Your task to perform on an android device: turn pop-ups on in chrome Image 0: 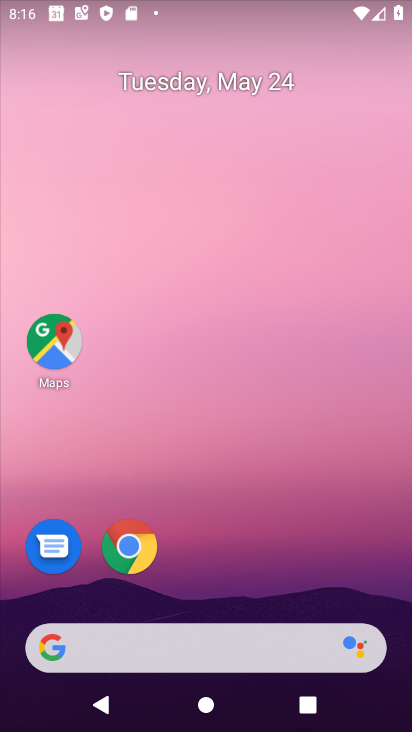
Step 0: click (138, 549)
Your task to perform on an android device: turn pop-ups on in chrome Image 1: 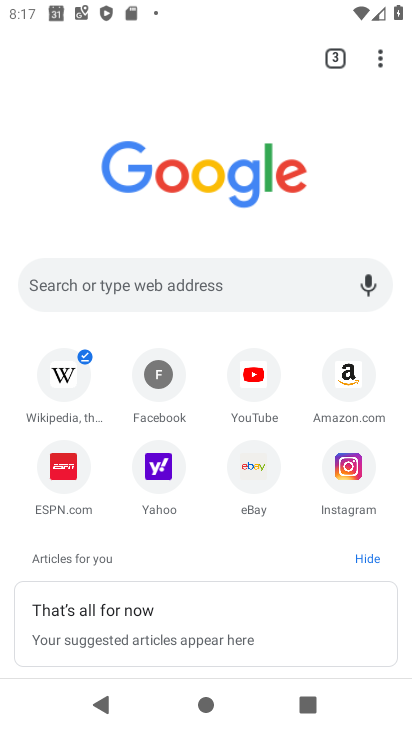
Step 1: click (376, 60)
Your task to perform on an android device: turn pop-ups on in chrome Image 2: 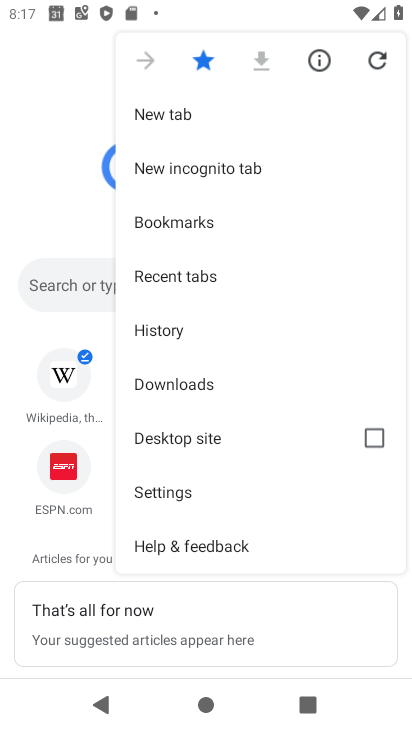
Step 2: click (210, 480)
Your task to perform on an android device: turn pop-ups on in chrome Image 3: 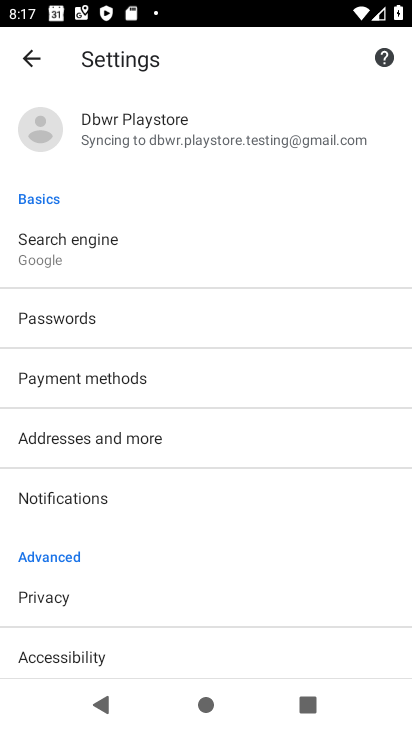
Step 3: drag from (218, 486) to (257, 159)
Your task to perform on an android device: turn pop-ups on in chrome Image 4: 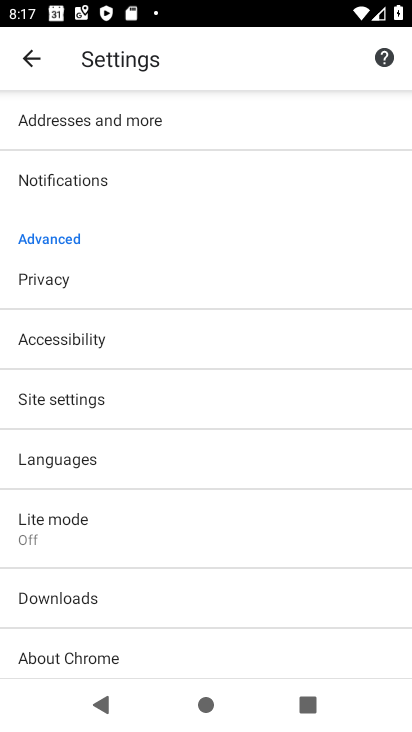
Step 4: click (245, 407)
Your task to perform on an android device: turn pop-ups on in chrome Image 5: 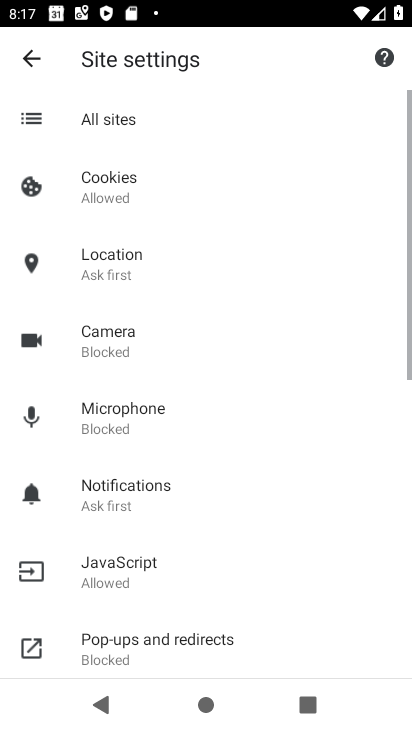
Step 5: drag from (245, 406) to (264, 156)
Your task to perform on an android device: turn pop-ups on in chrome Image 6: 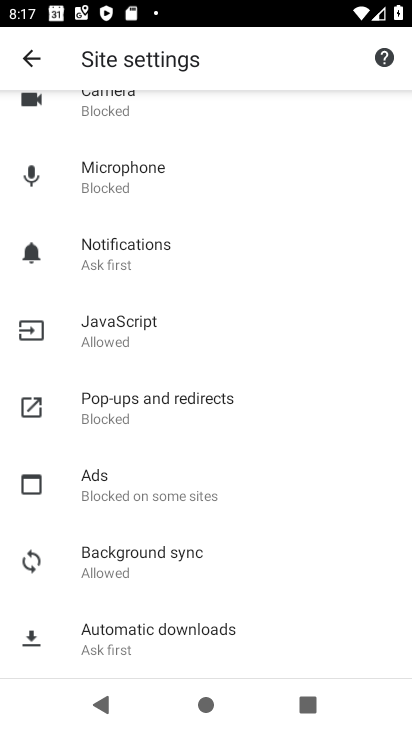
Step 6: click (178, 409)
Your task to perform on an android device: turn pop-ups on in chrome Image 7: 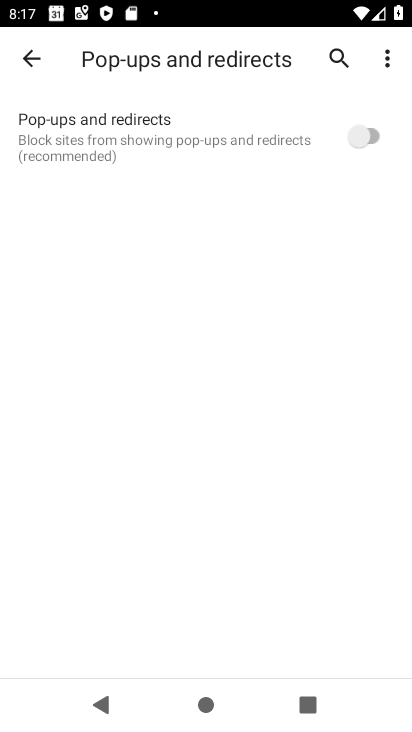
Step 7: click (368, 118)
Your task to perform on an android device: turn pop-ups on in chrome Image 8: 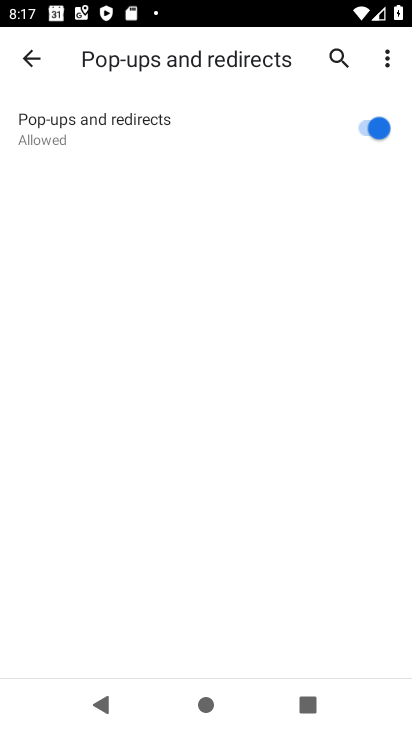
Step 8: task complete